Your task to perform on an android device: find photos in the google photos app Image 0: 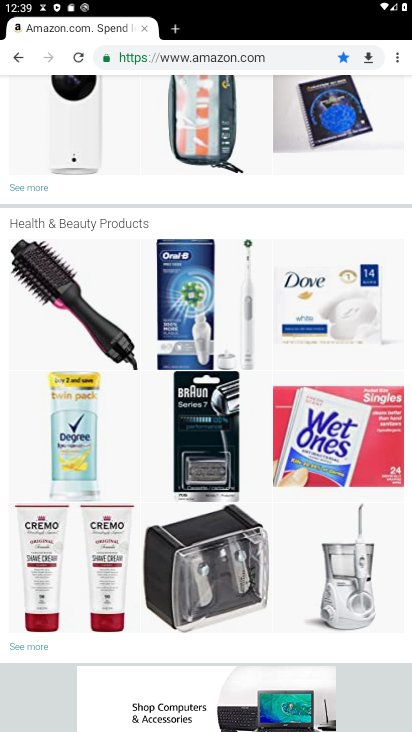
Step 0: press home button
Your task to perform on an android device: find photos in the google photos app Image 1: 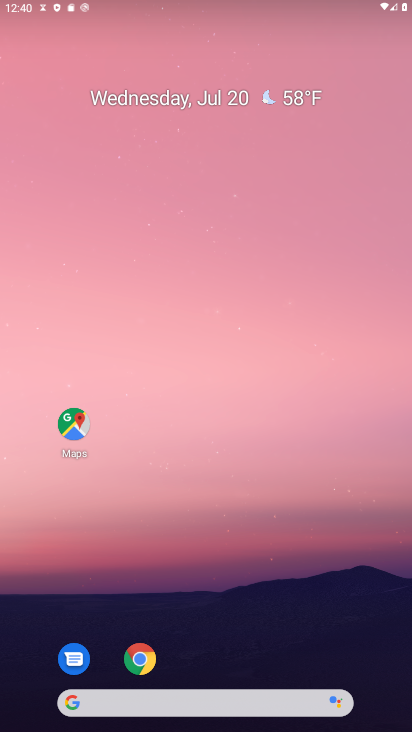
Step 1: press home button
Your task to perform on an android device: find photos in the google photos app Image 2: 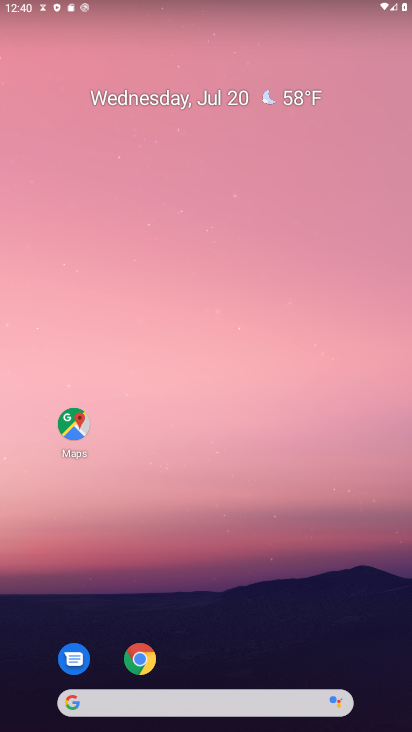
Step 2: drag from (219, 668) to (237, 32)
Your task to perform on an android device: find photos in the google photos app Image 3: 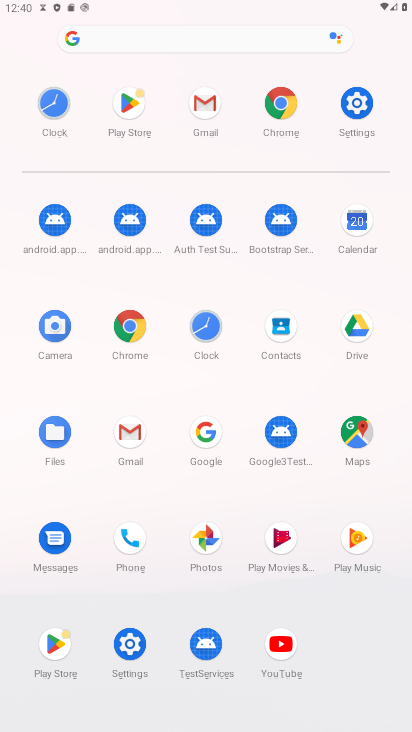
Step 3: click (206, 534)
Your task to perform on an android device: find photos in the google photos app Image 4: 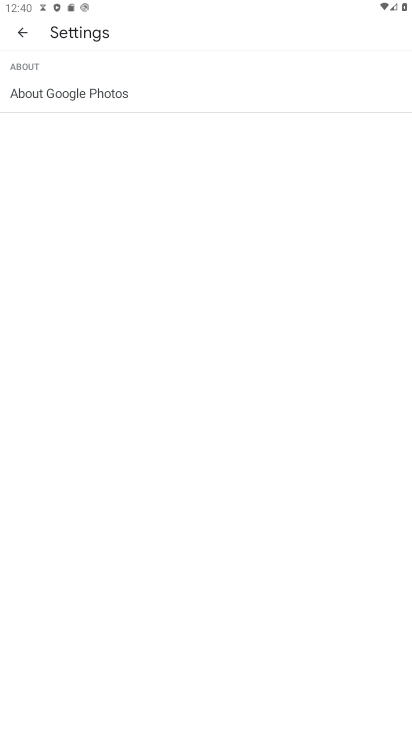
Step 4: click (19, 28)
Your task to perform on an android device: find photos in the google photos app Image 5: 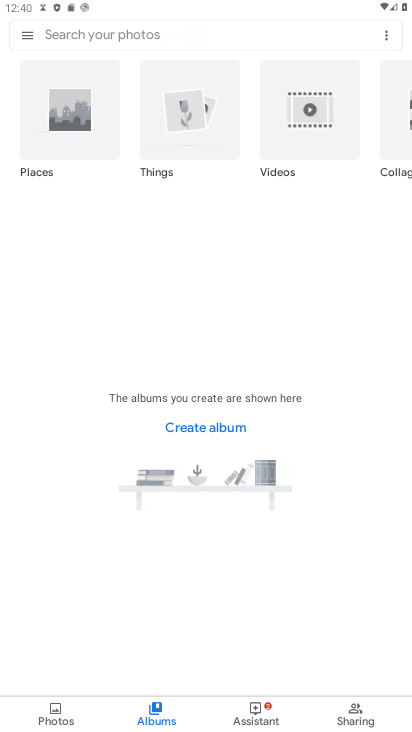
Step 5: click (48, 709)
Your task to perform on an android device: find photos in the google photos app Image 6: 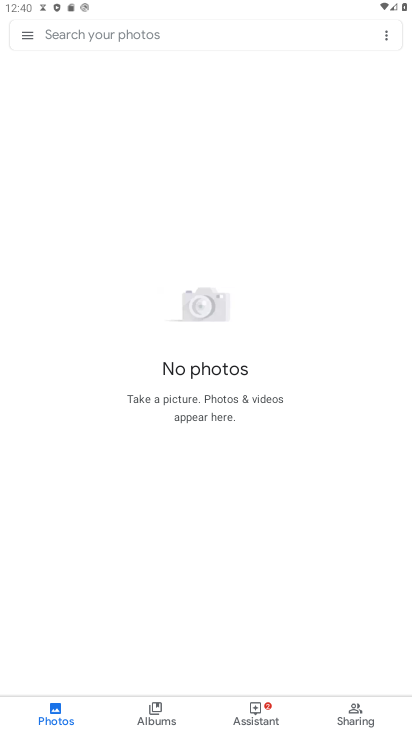
Step 6: task complete